Your task to perform on an android device: see tabs open on other devices in the chrome app Image 0: 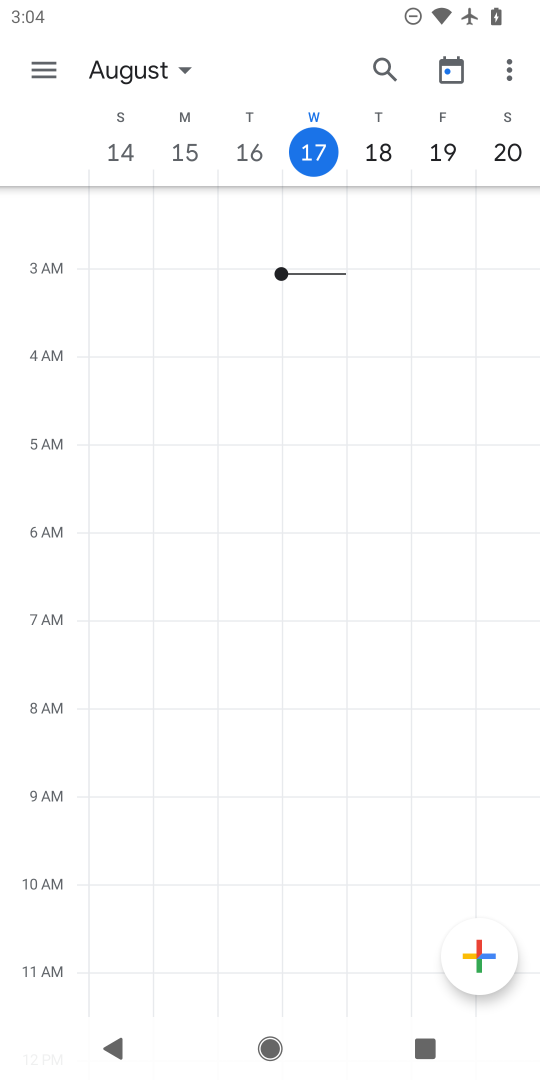
Step 0: press home button
Your task to perform on an android device: see tabs open on other devices in the chrome app Image 1: 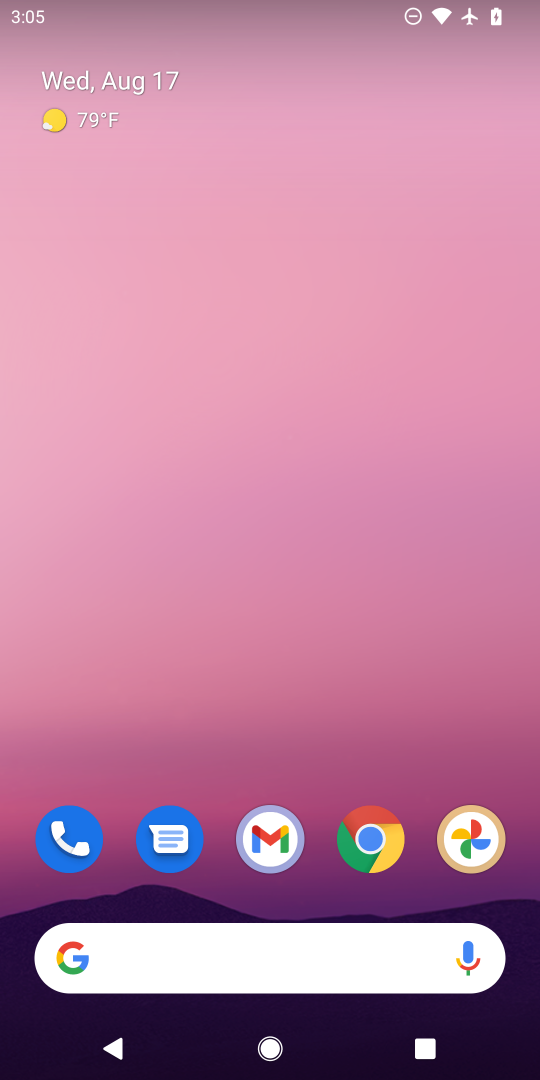
Step 1: click (363, 835)
Your task to perform on an android device: see tabs open on other devices in the chrome app Image 2: 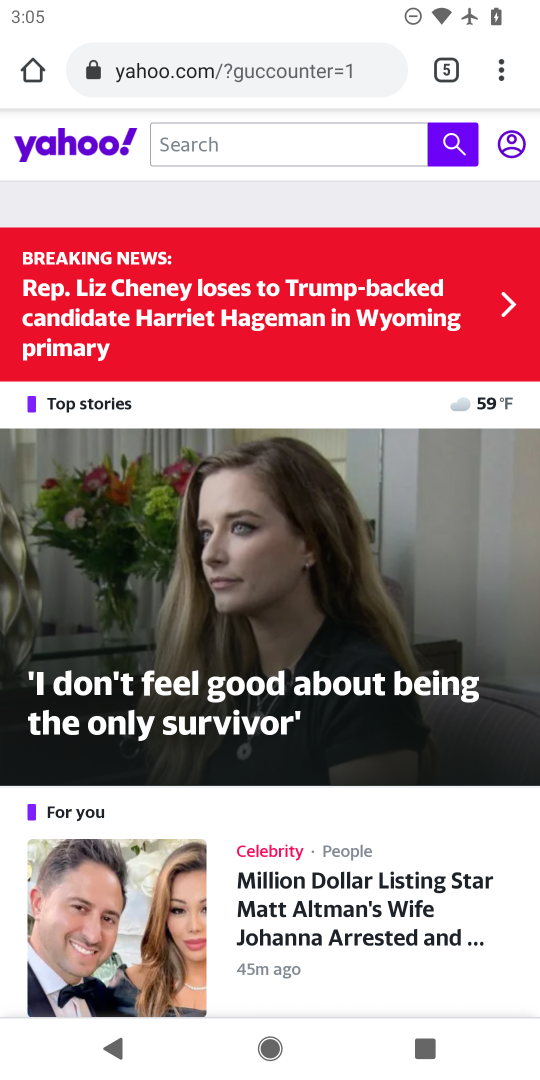
Step 2: click (501, 75)
Your task to perform on an android device: see tabs open on other devices in the chrome app Image 3: 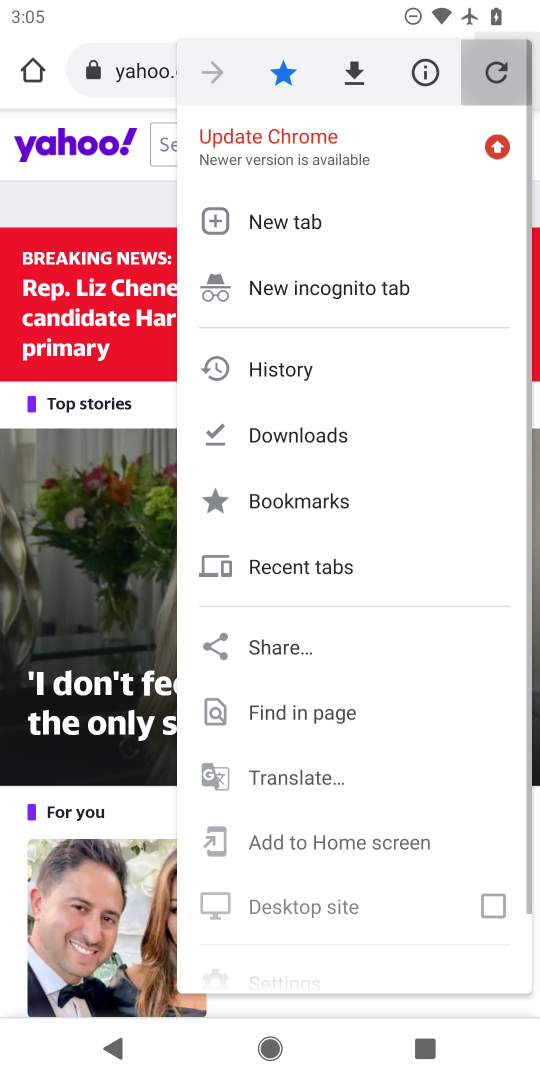
Step 3: task complete